Your task to perform on an android device: Open Youtube and go to "Your channel" Image 0: 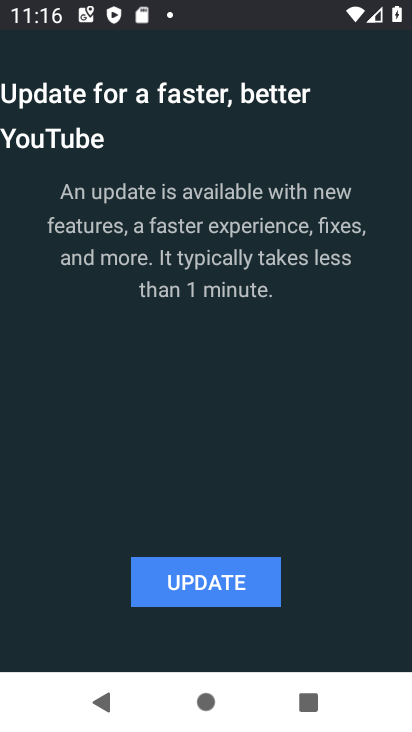
Step 0: press home button
Your task to perform on an android device: Open Youtube and go to "Your channel" Image 1: 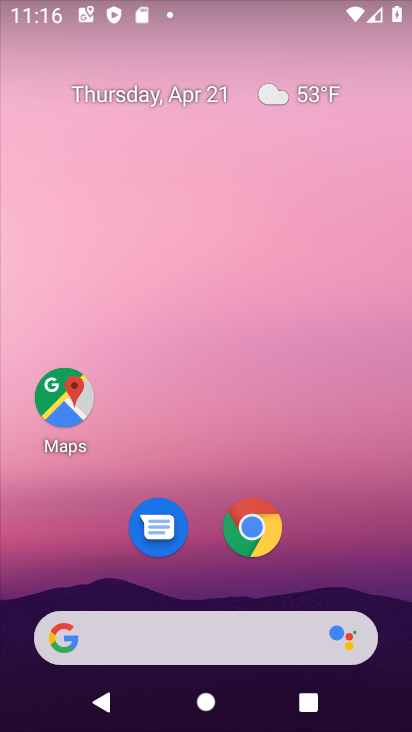
Step 1: drag from (358, 547) to (361, 114)
Your task to perform on an android device: Open Youtube and go to "Your channel" Image 2: 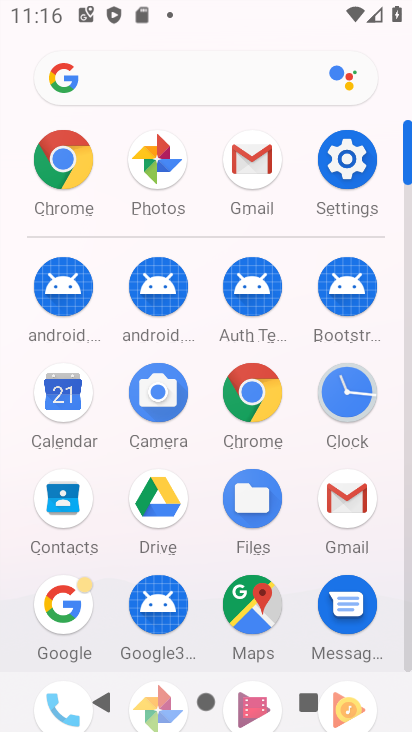
Step 2: drag from (394, 555) to (386, 279)
Your task to perform on an android device: Open Youtube and go to "Your channel" Image 3: 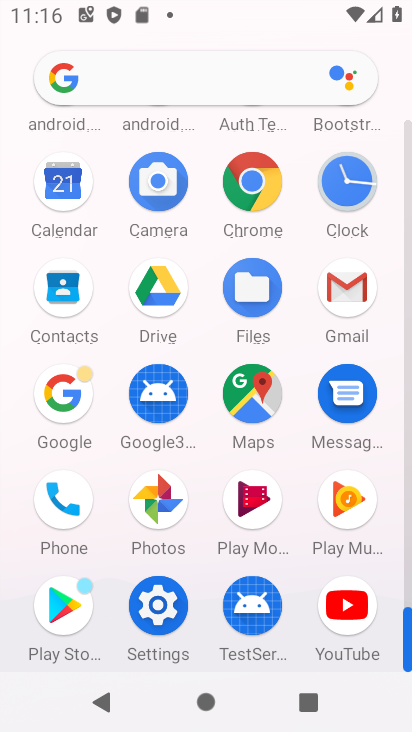
Step 3: click (356, 595)
Your task to perform on an android device: Open Youtube and go to "Your channel" Image 4: 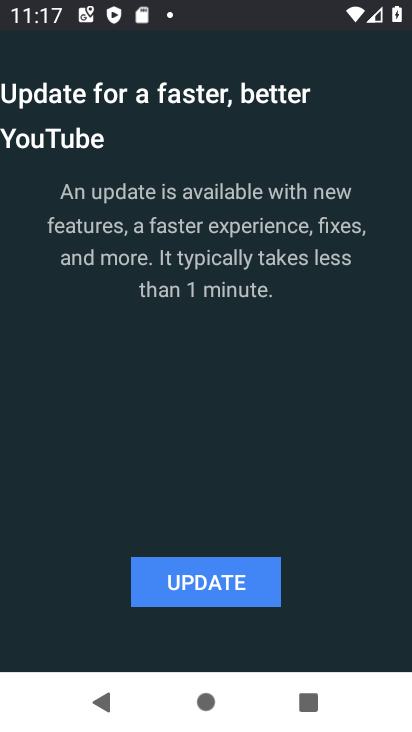
Step 4: click (278, 595)
Your task to perform on an android device: Open Youtube and go to "Your channel" Image 5: 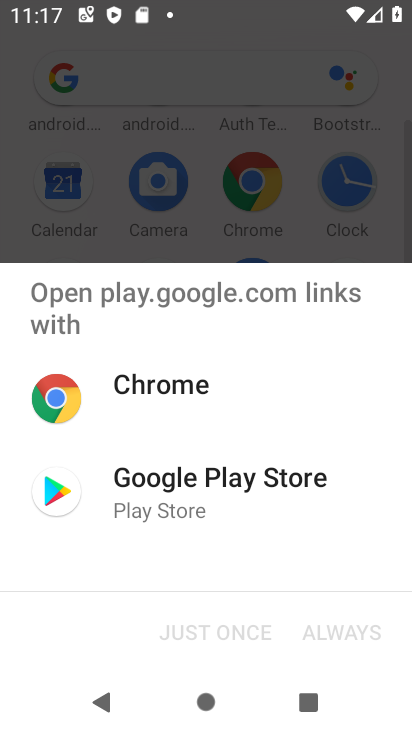
Step 5: click (231, 491)
Your task to perform on an android device: Open Youtube and go to "Your channel" Image 6: 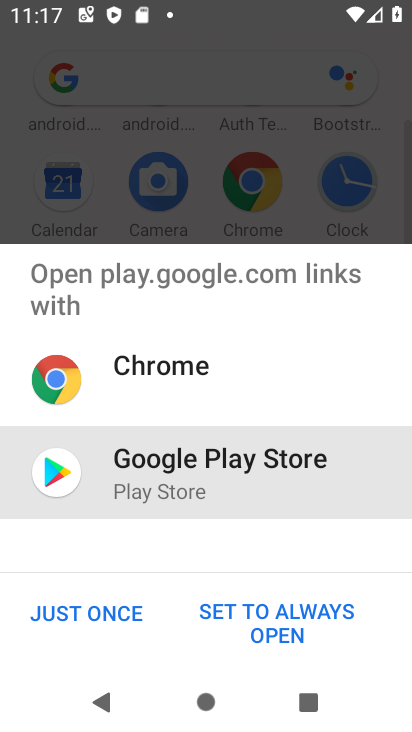
Step 6: click (117, 606)
Your task to perform on an android device: Open Youtube and go to "Your channel" Image 7: 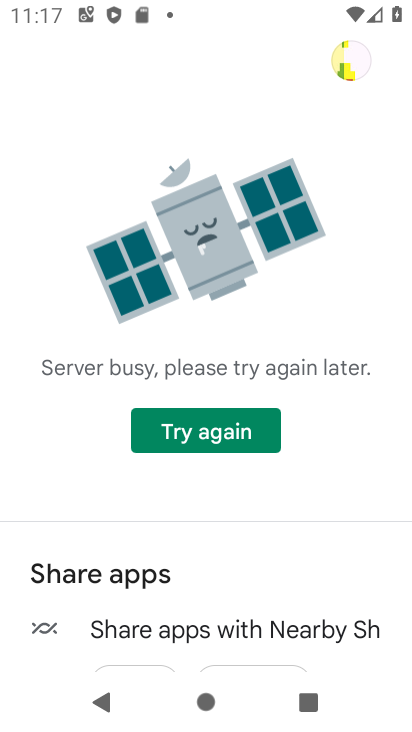
Step 7: drag from (374, 512) to (365, 324)
Your task to perform on an android device: Open Youtube and go to "Your channel" Image 8: 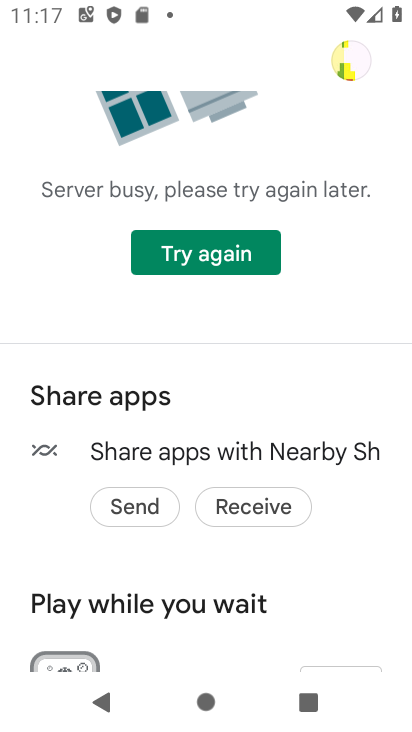
Step 8: click (256, 249)
Your task to perform on an android device: Open Youtube and go to "Your channel" Image 9: 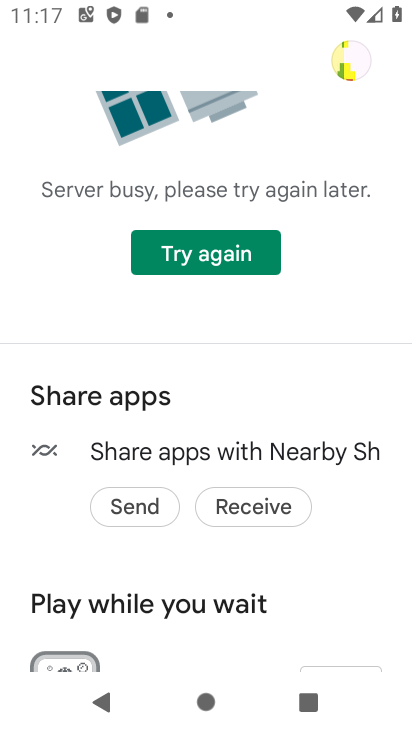
Step 9: task complete